Your task to perform on an android device: turn on notifications settings in the gmail app Image 0: 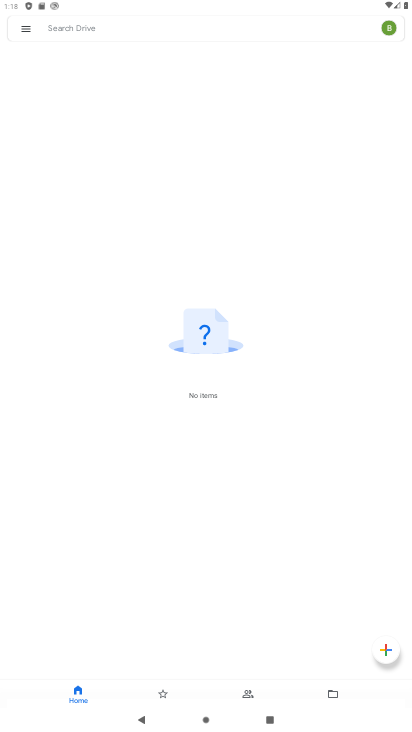
Step 0: press home button
Your task to perform on an android device: turn on notifications settings in the gmail app Image 1: 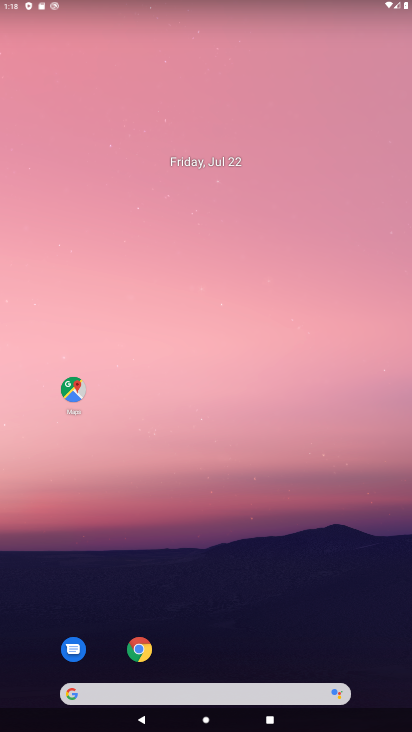
Step 1: drag from (260, 611) to (217, 56)
Your task to perform on an android device: turn on notifications settings in the gmail app Image 2: 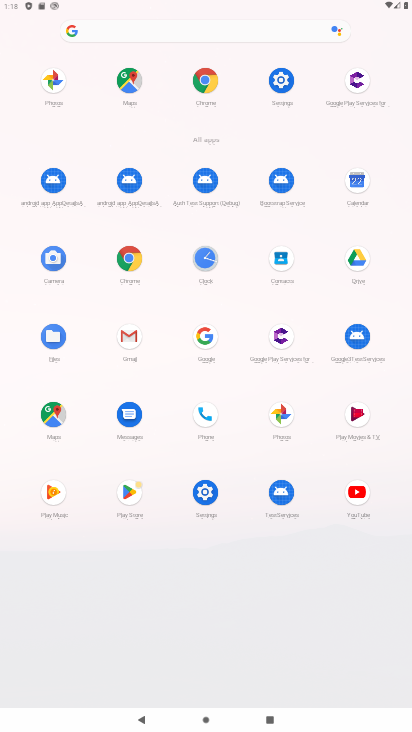
Step 2: click (129, 339)
Your task to perform on an android device: turn on notifications settings in the gmail app Image 3: 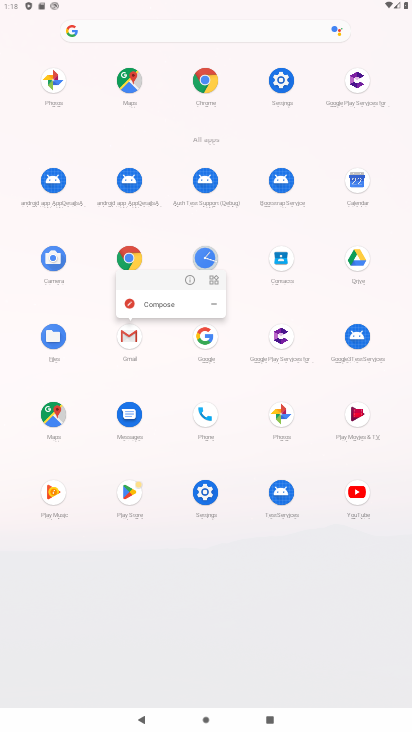
Step 3: click (193, 278)
Your task to perform on an android device: turn on notifications settings in the gmail app Image 4: 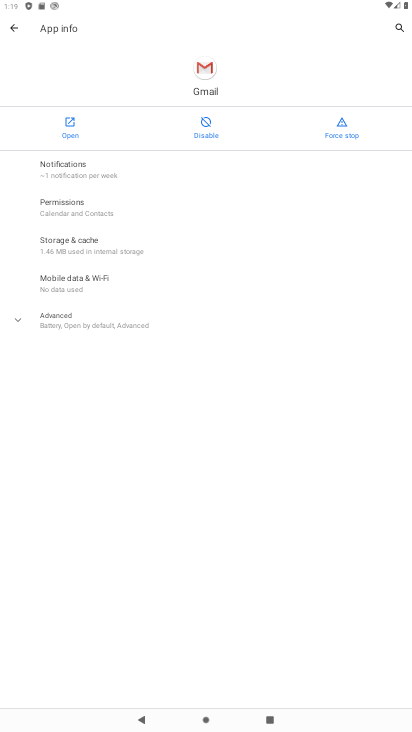
Step 4: click (72, 166)
Your task to perform on an android device: turn on notifications settings in the gmail app Image 5: 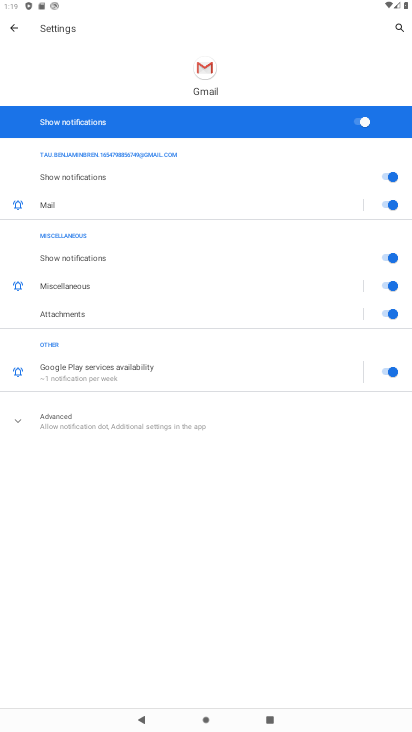
Step 5: task complete